Your task to perform on an android device: set the stopwatch Image 0: 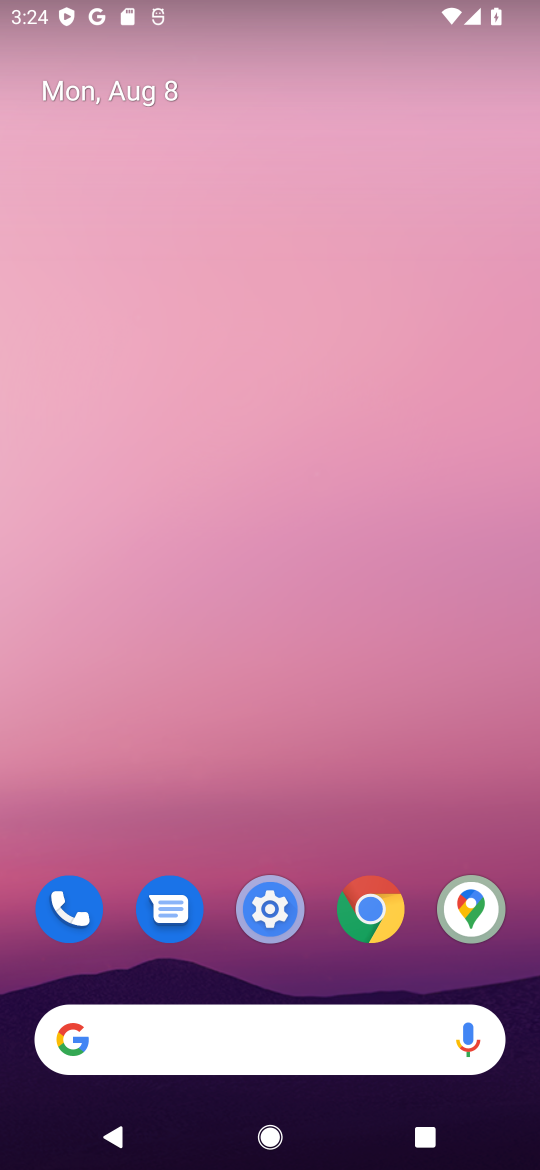
Step 0: drag from (235, 984) to (305, 155)
Your task to perform on an android device: set the stopwatch Image 1: 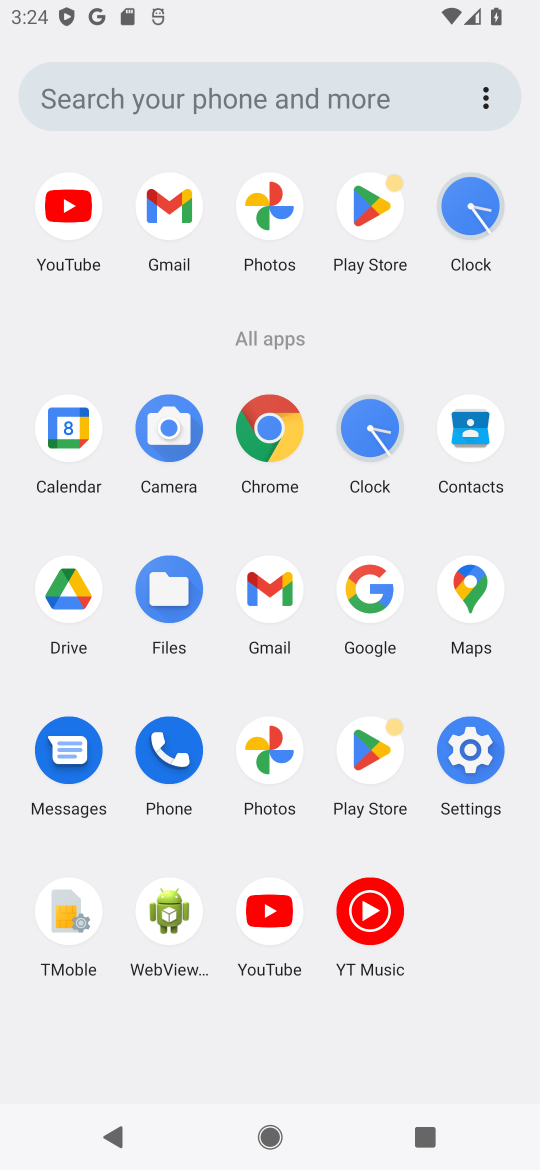
Step 1: click (480, 207)
Your task to perform on an android device: set the stopwatch Image 2: 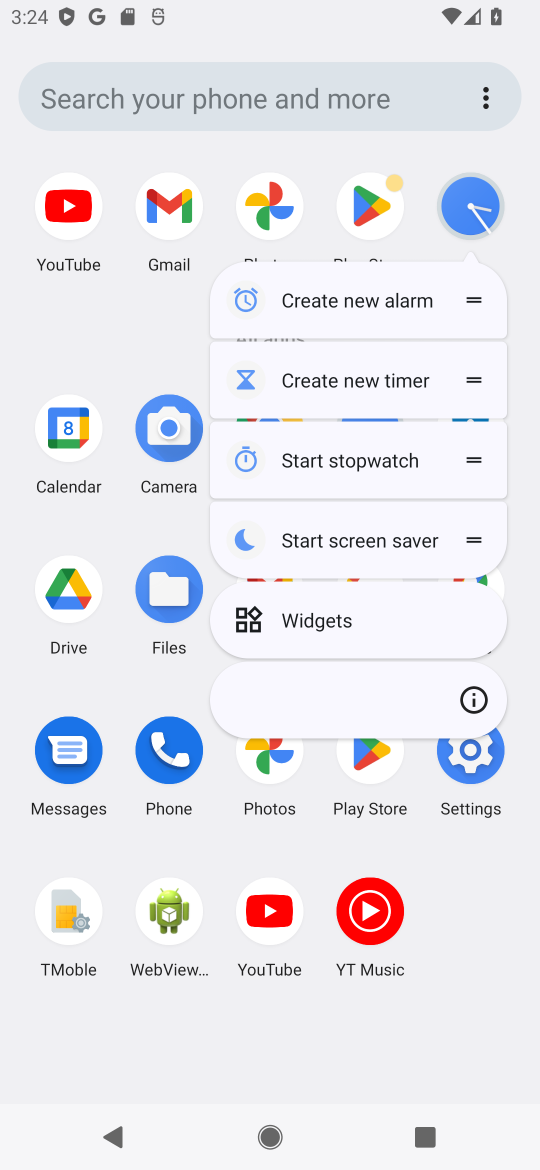
Step 2: click (465, 187)
Your task to perform on an android device: set the stopwatch Image 3: 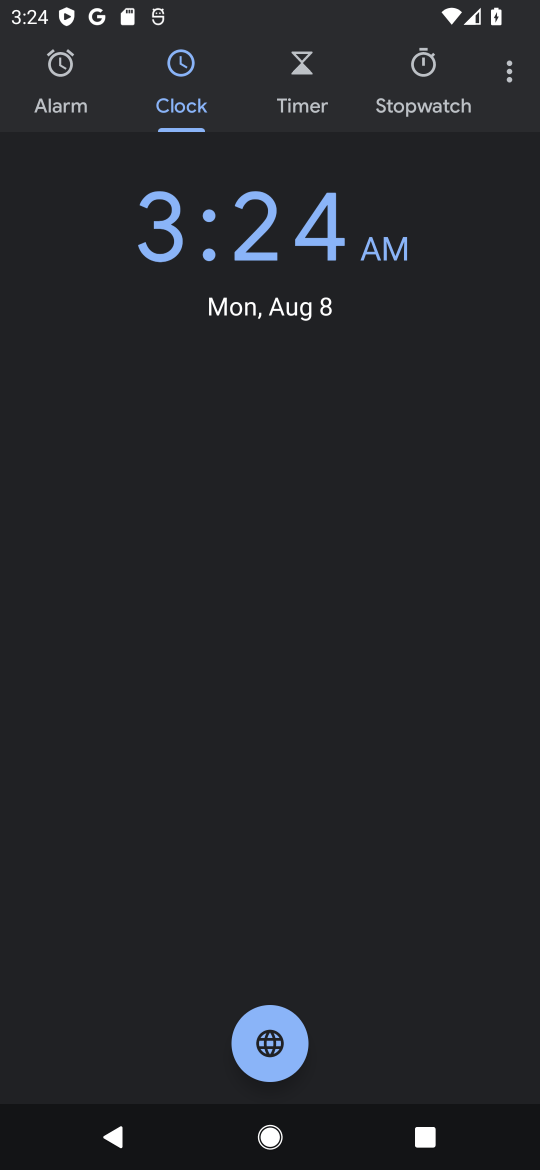
Step 3: click (510, 76)
Your task to perform on an android device: set the stopwatch Image 4: 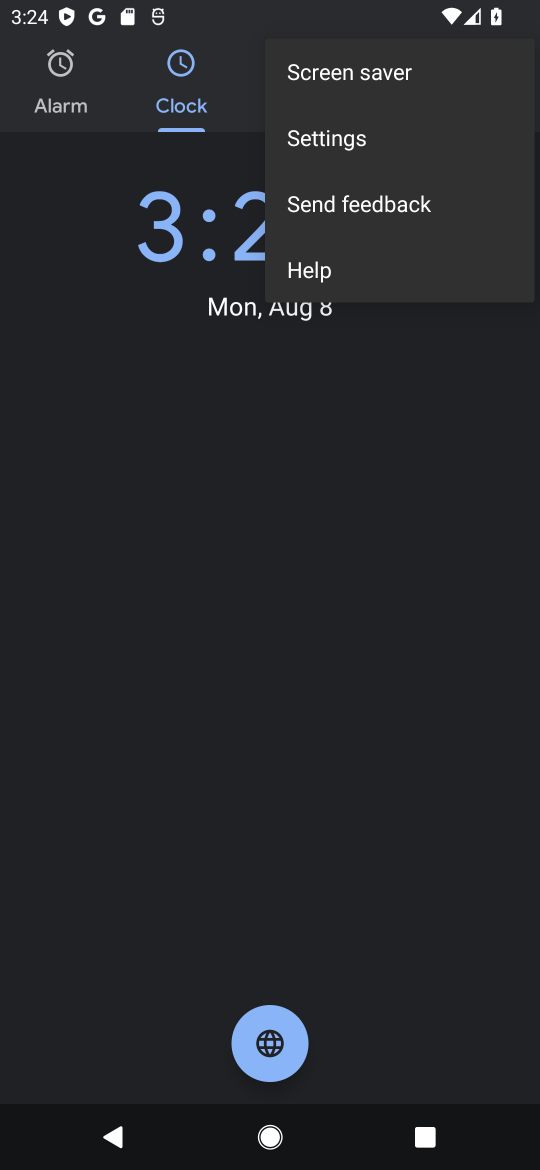
Step 4: click (203, 530)
Your task to perform on an android device: set the stopwatch Image 5: 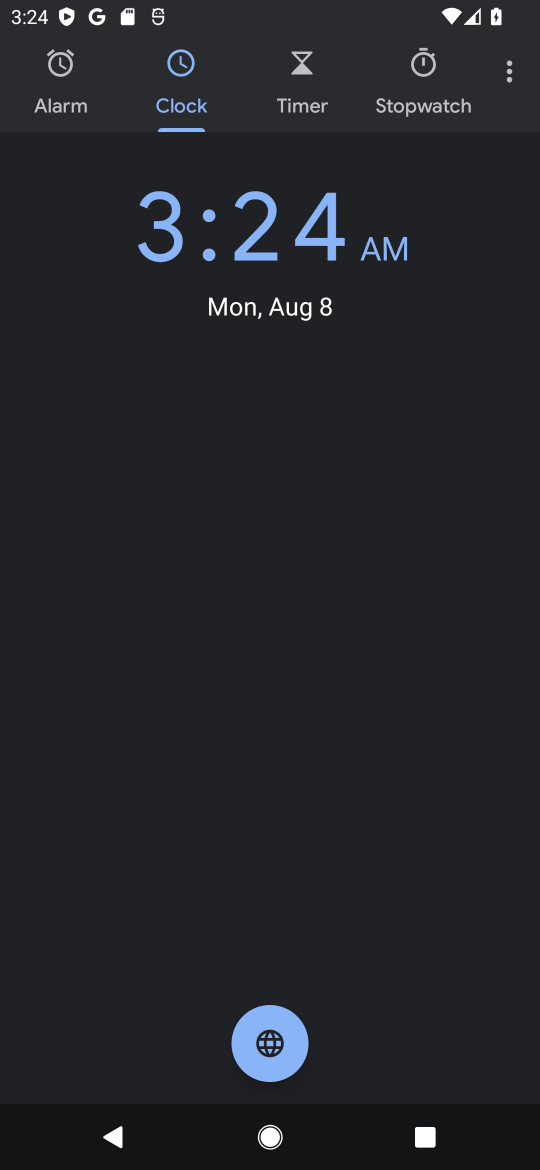
Step 5: click (407, 98)
Your task to perform on an android device: set the stopwatch Image 6: 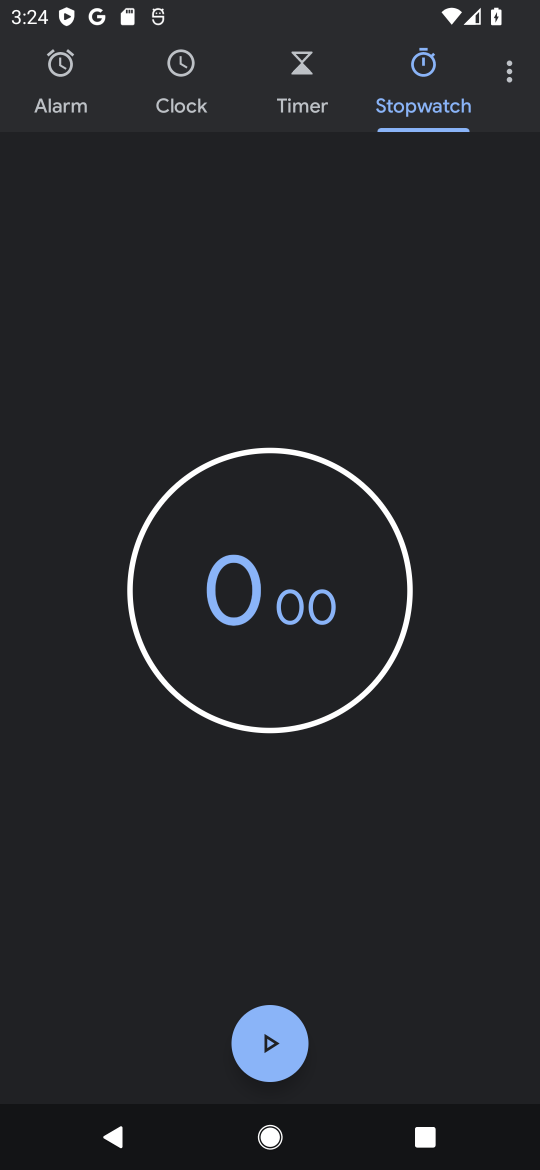
Step 6: click (270, 1064)
Your task to perform on an android device: set the stopwatch Image 7: 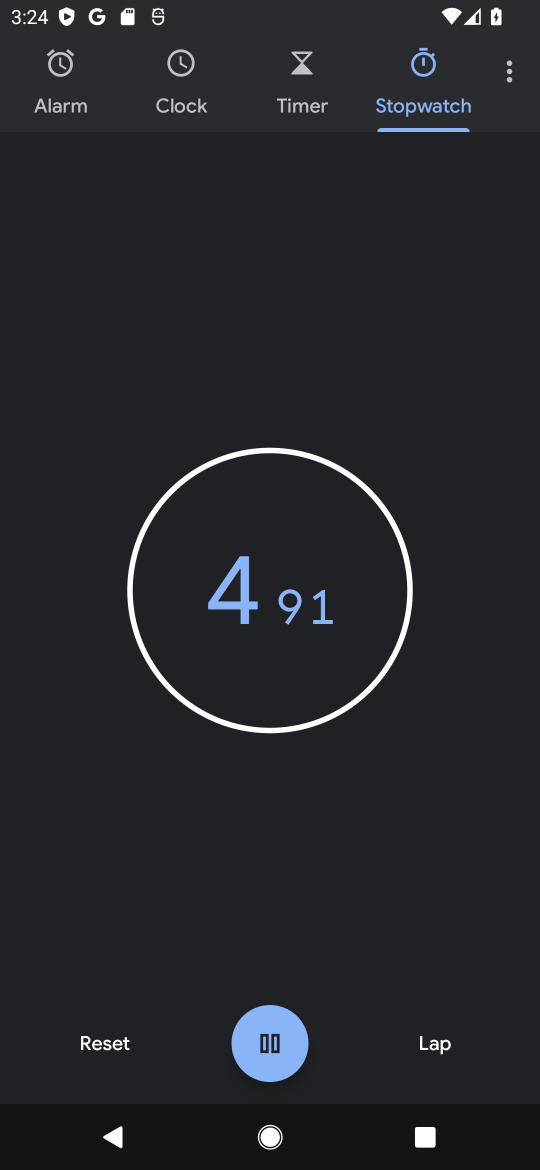
Step 7: click (263, 1045)
Your task to perform on an android device: set the stopwatch Image 8: 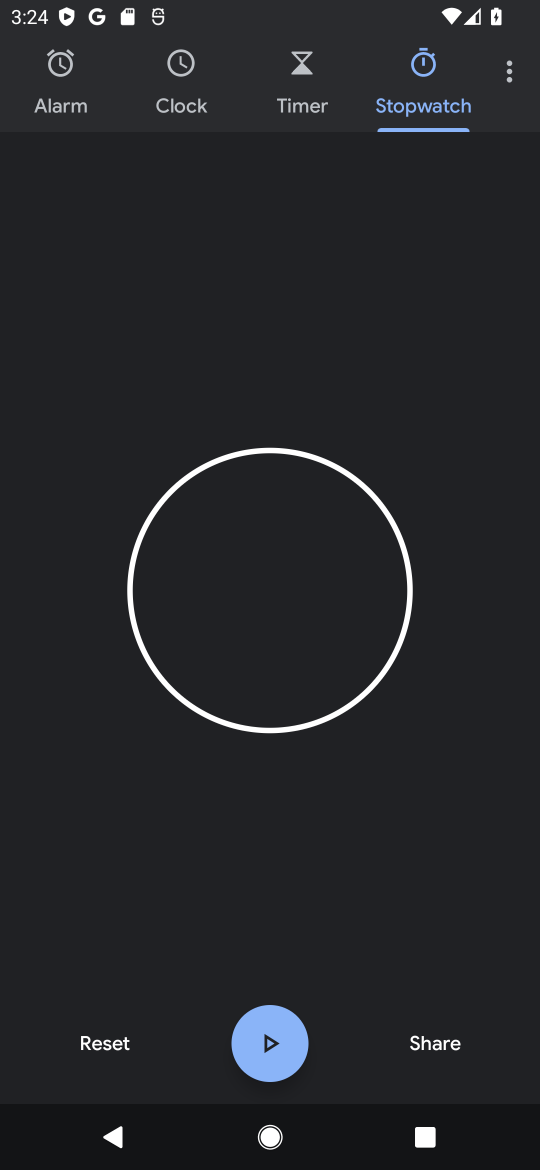
Step 8: task complete